Your task to perform on an android device: Open Youtube and go to "Your channel" Image 0: 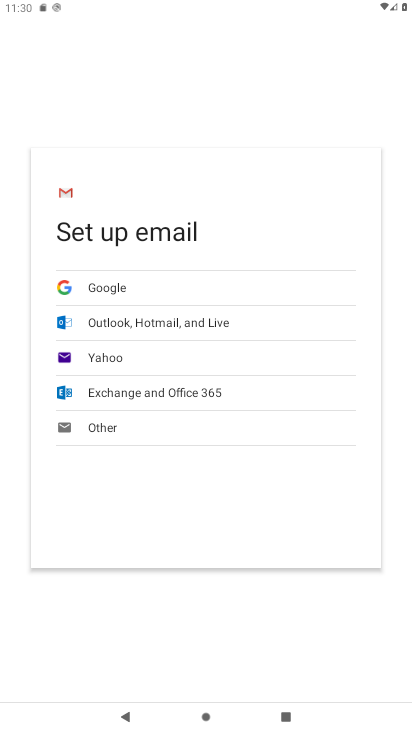
Step 0: press home button
Your task to perform on an android device: Open Youtube and go to "Your channel" Image 1: 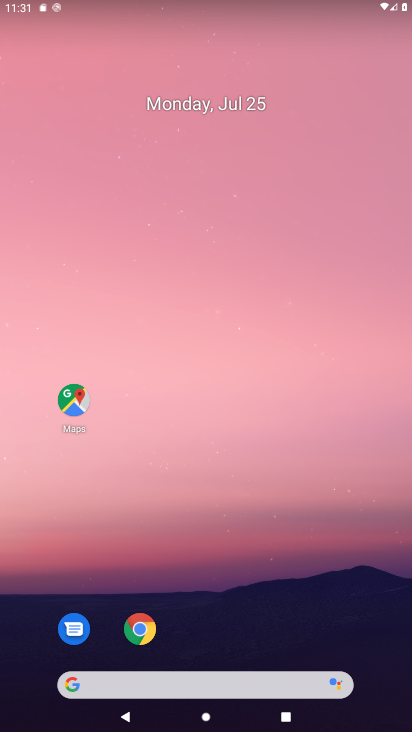
Step 1: drag from (195, 693) to (186, 136)
Your task to perform on an android device: Open Youtube and go to "Your channel" Image 2: 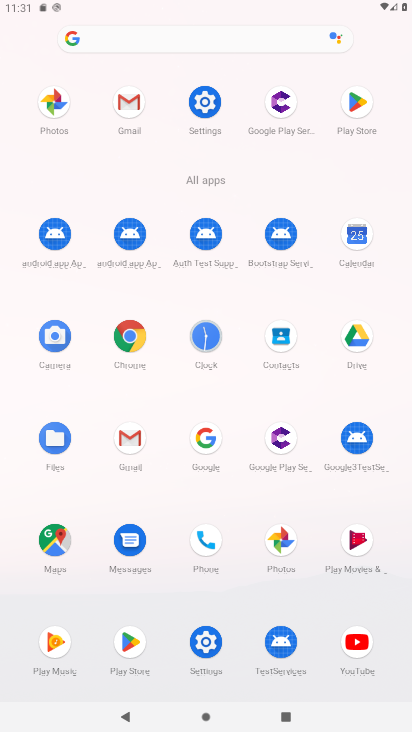
Step 2: click (355, 657)
Your task to perform on an android device: Open Youtube and go to "Your channel" Image 3: 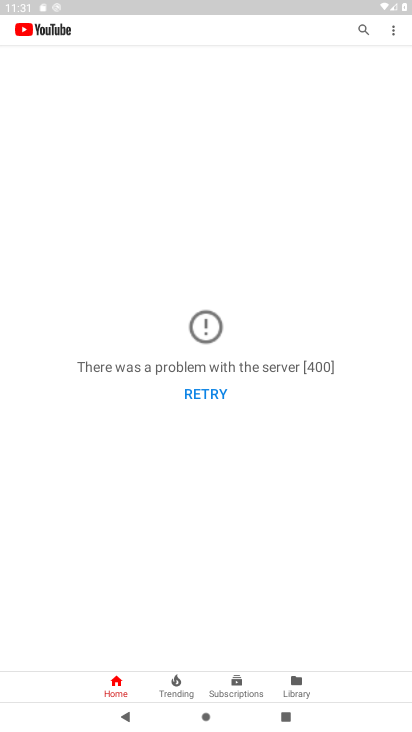
Step 3: click (300, 691)
Your task to perform on an android device: Open Youtube and go to "Your channel" Image 4: 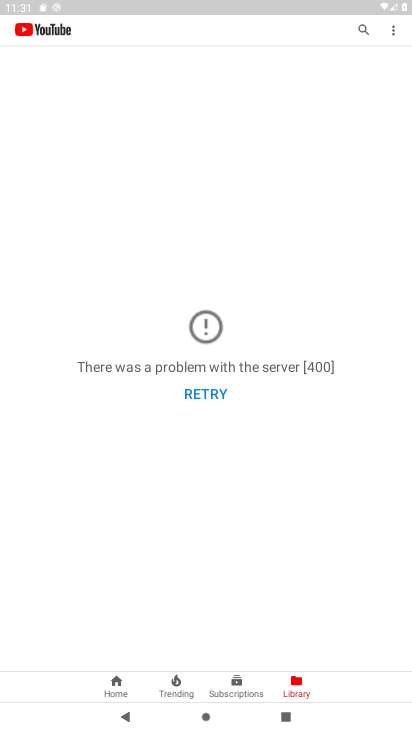
Step 4: task complete